Your task to perform on an android device: turn off location history Image 0: 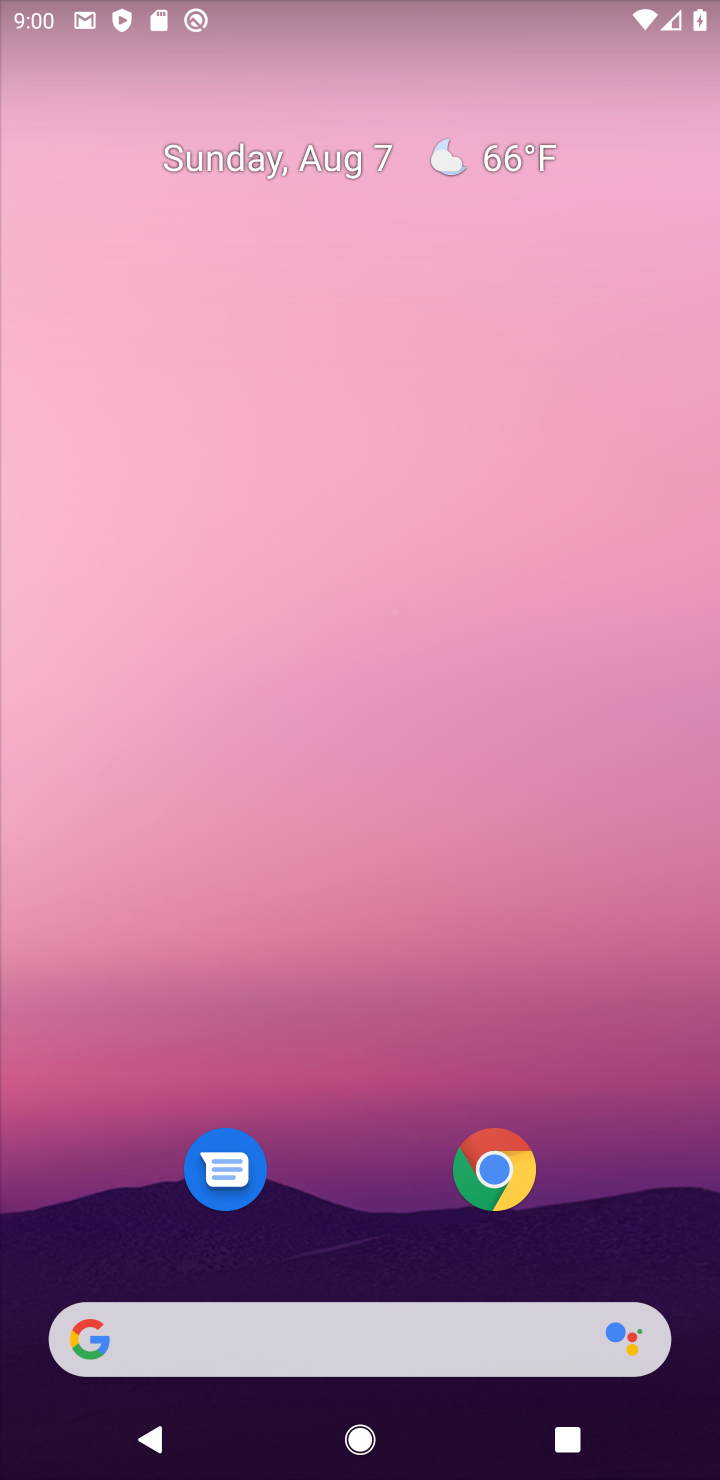
Step 0: drag from (286, 1211) to (268, 149)
Your task to perform on an android device: turn off location history Image 1: 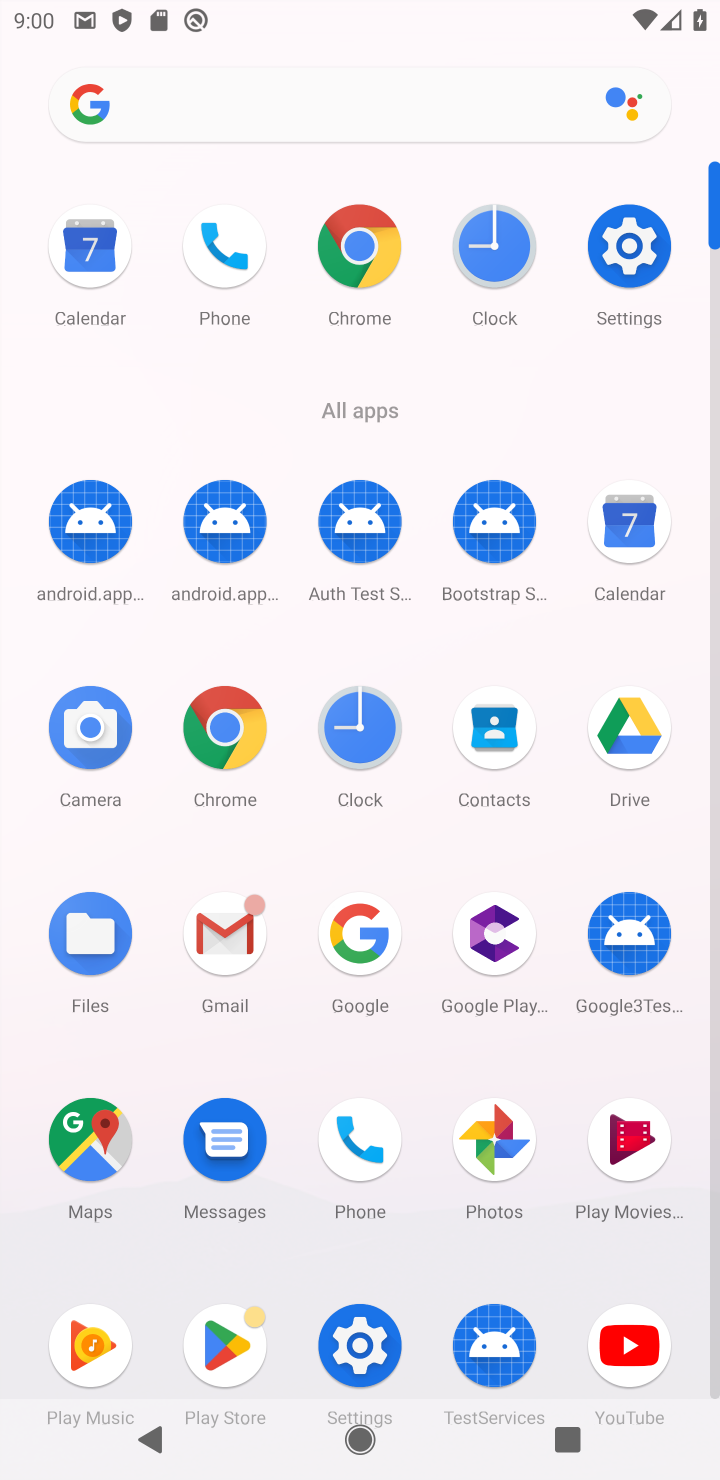
Step 1: click (614, 275)
Your task to perform on an android device: turn off location history Image 2: 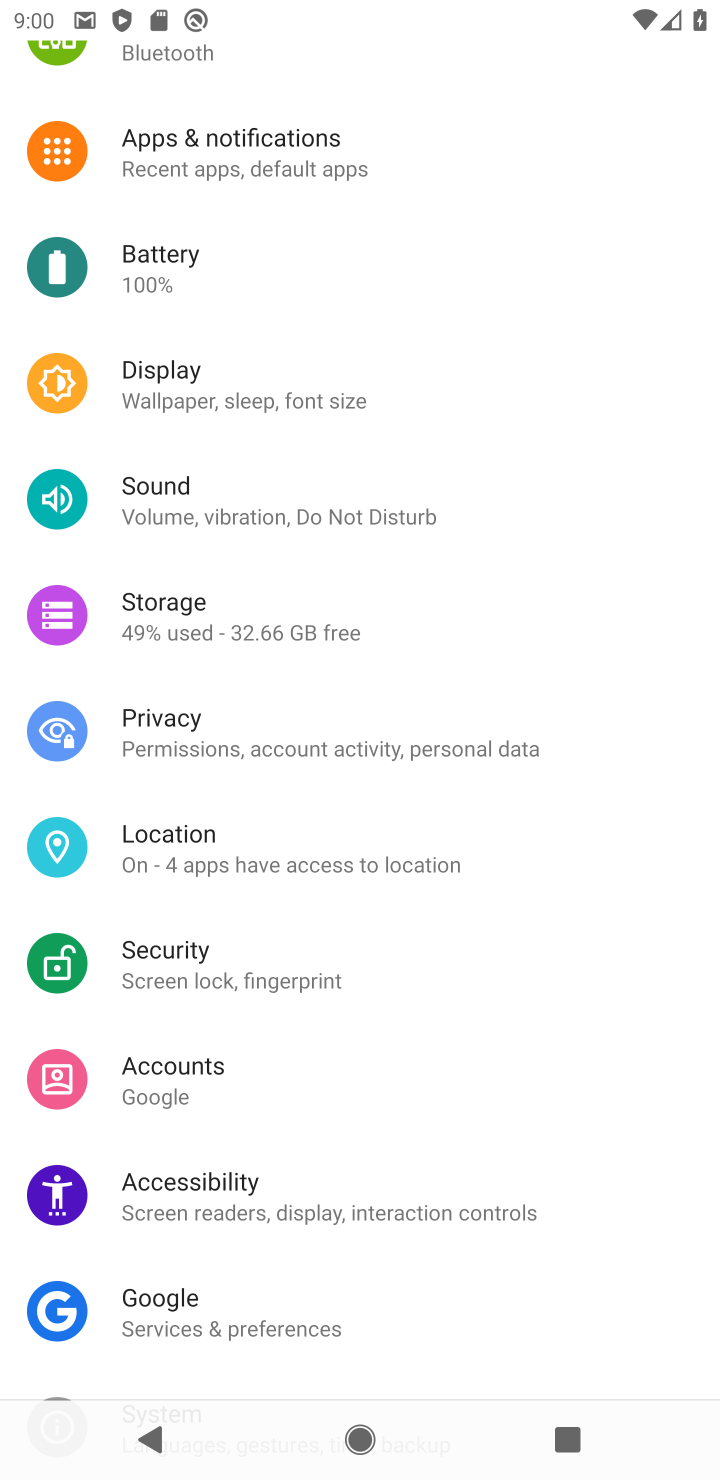
Step 2: click (225, 858)
Your task to perform on an android device: turn off location history Image 3: 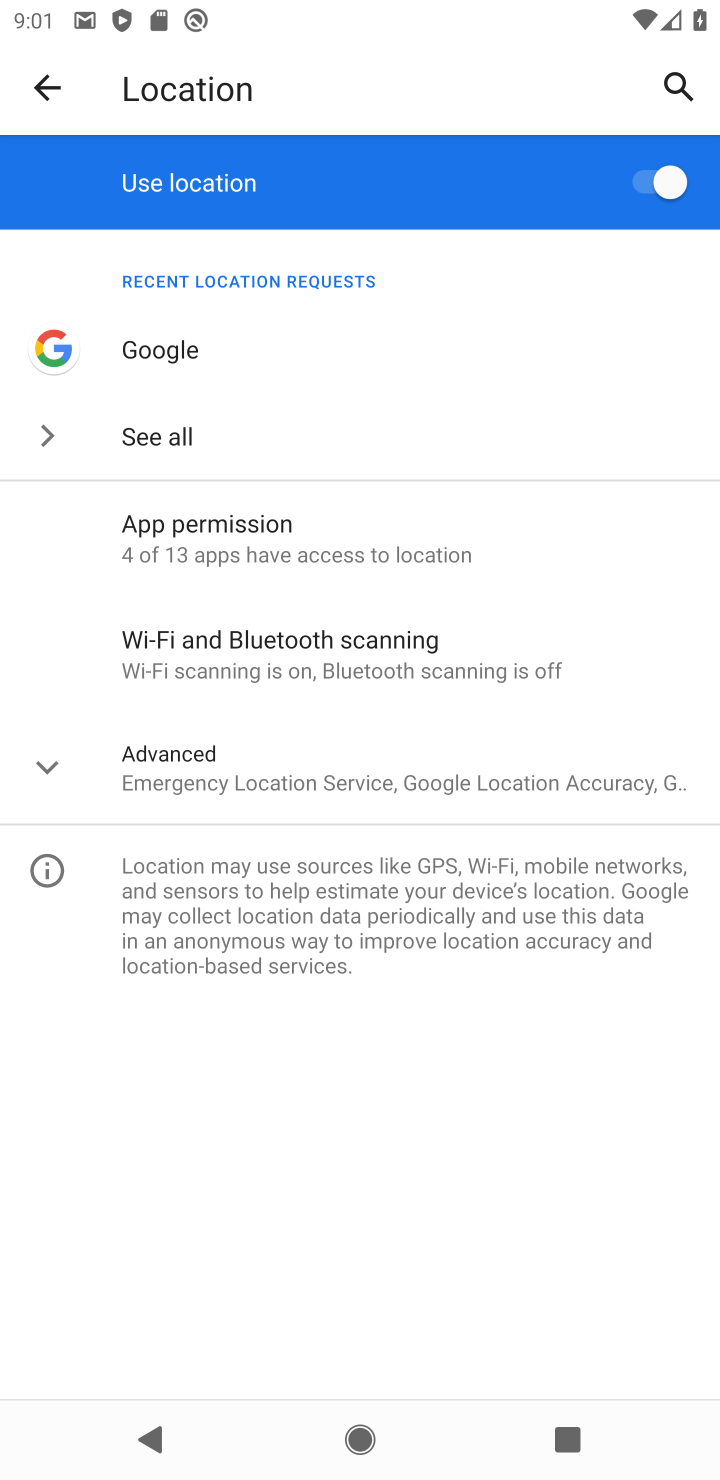
Step 3: click (257, 759)
Your task to perform on an android device: turn off location history Image 4: 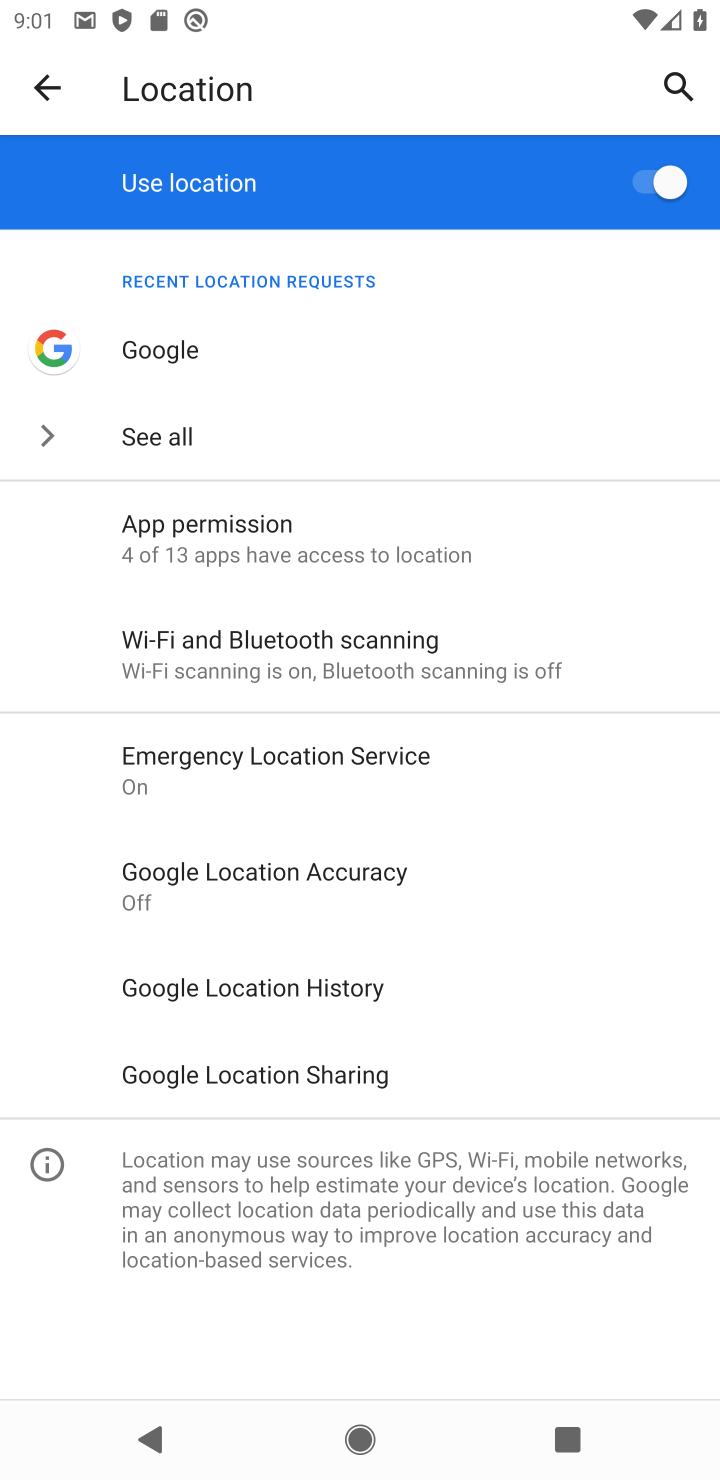
Step 4: click (337, 991)
Your task to perform on an android device: turn off location history Image 5: 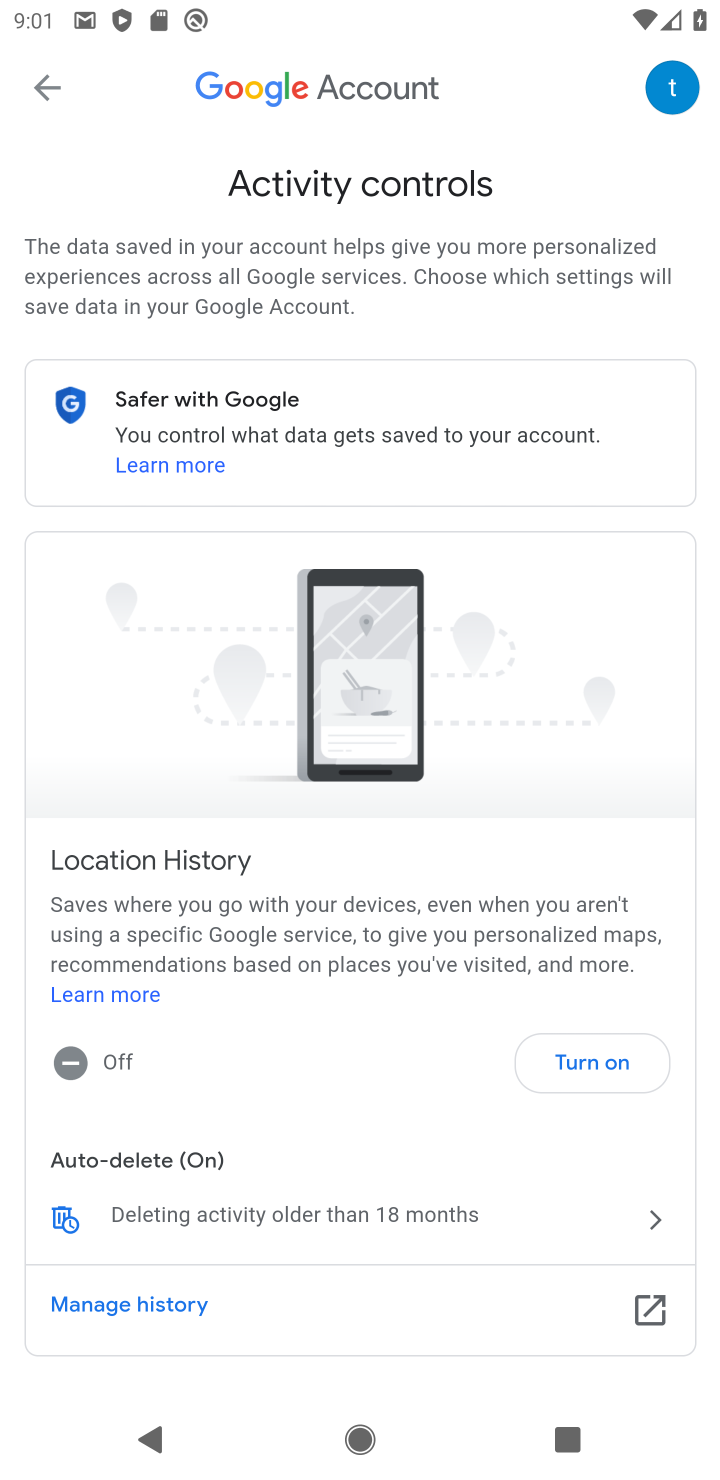
Step 5: task complete